Your task to perform on an android device: What's the weather going to be tomorrow? Image 0: 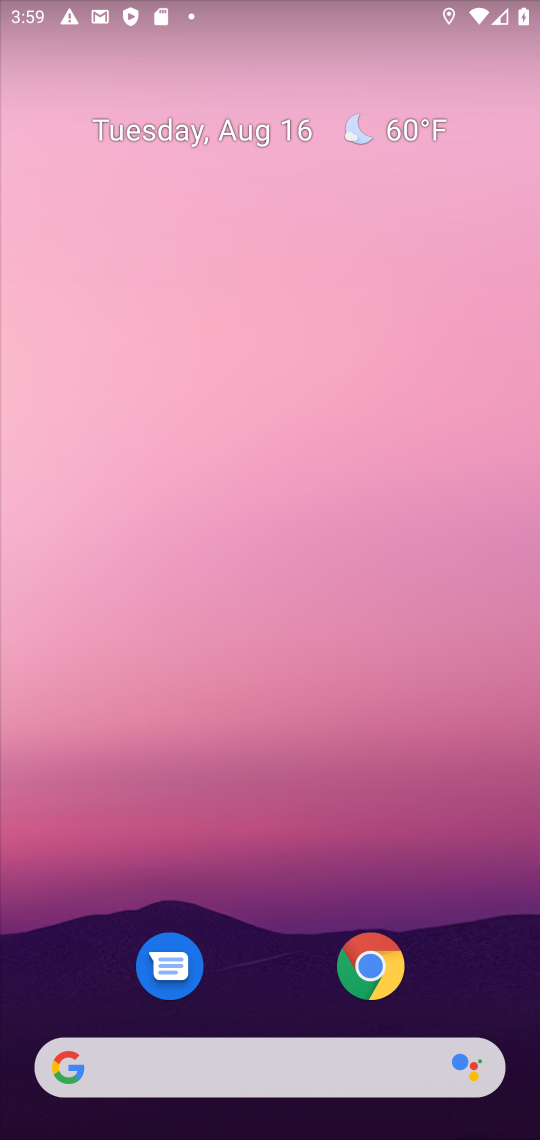
Step 0: click (140, 1069)
Your task to perform on an android device: What's the weather going to be tomorrow? Image 1: 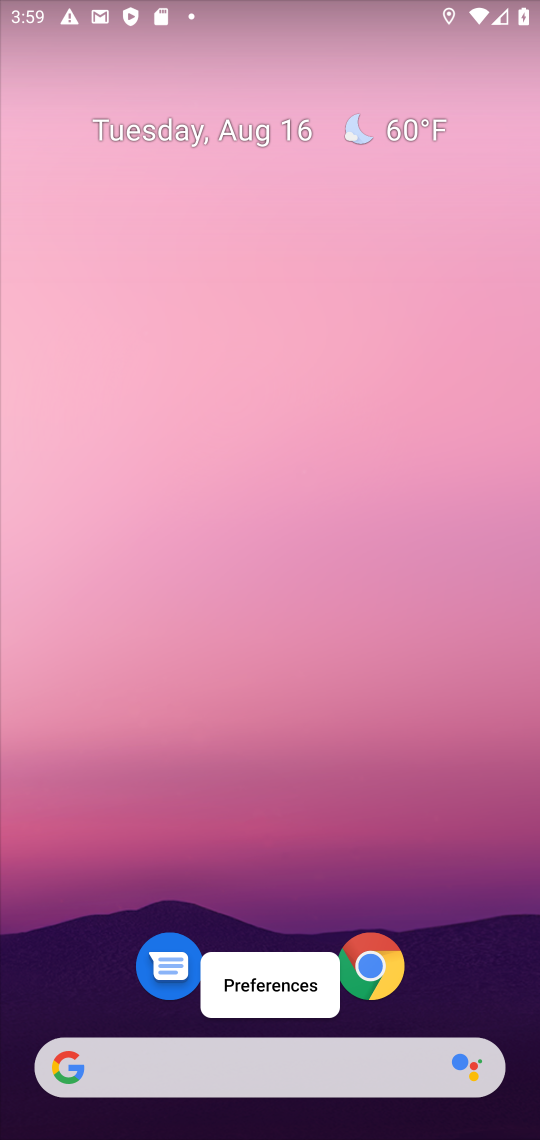
Step 1: click (151, 1057)
Your task to perform on an android device: What's the weather going to be tomorrow? Image 2: 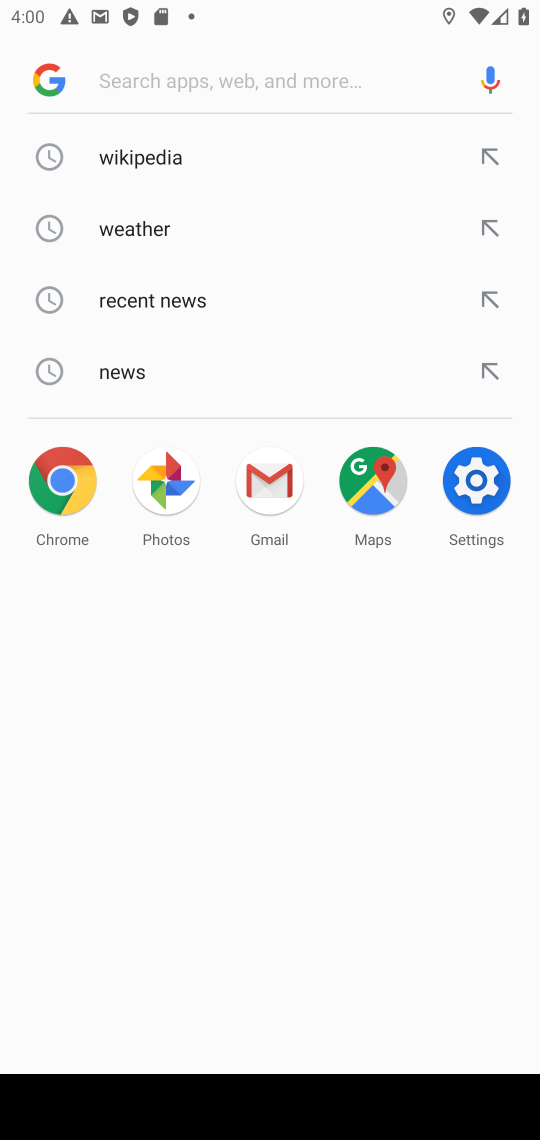
Step 2: type "What's the weather going to be tomorrow?"
Your task to perform on an android device: What's the weather going to be tomorrow? Image 3: 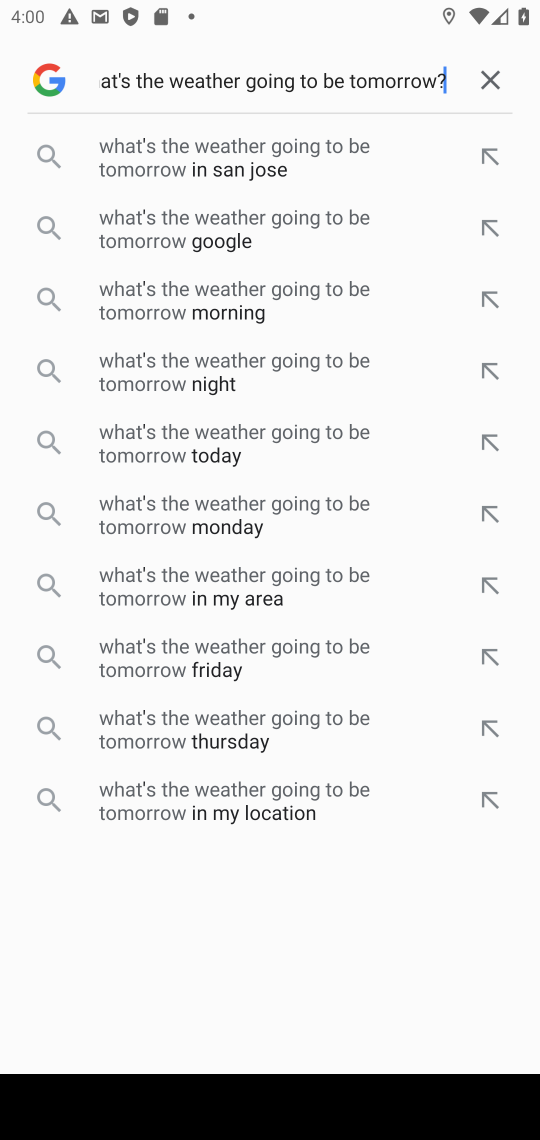
Step 3: type ""
Your task to perform on an android device: What's the weather going to be tomorrow? Image 4: 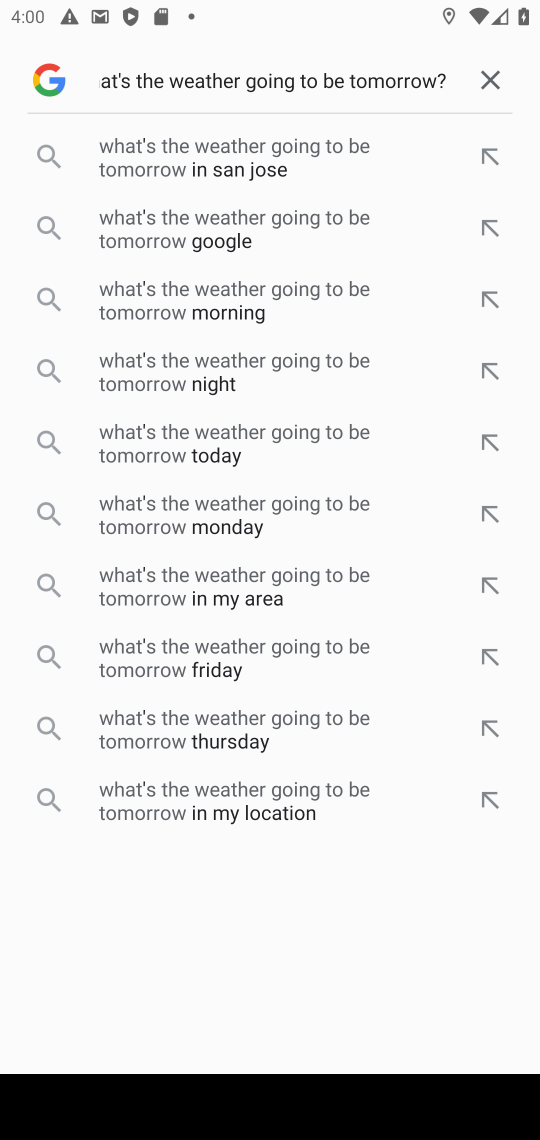
Step 4: type ""
Your task to perform on an android device: What's the weather going to be tomorrow? Image 5: 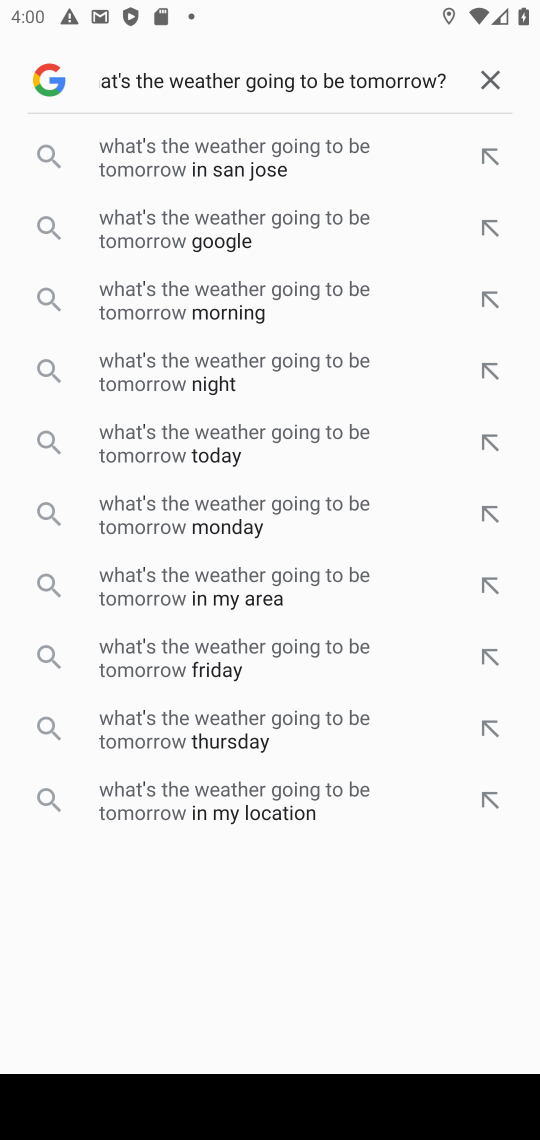
Step 5: task complete